Your task to perform on an android device: change text size in settings app Image 0: 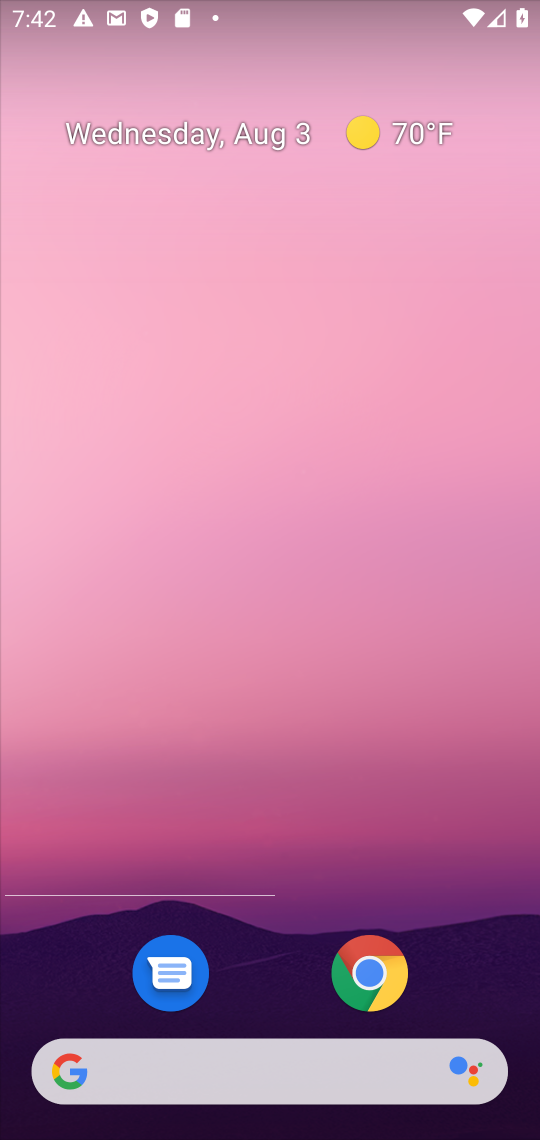
Step 0: press home button
Your task to perform on an android device: change text size in settings app Image 1: 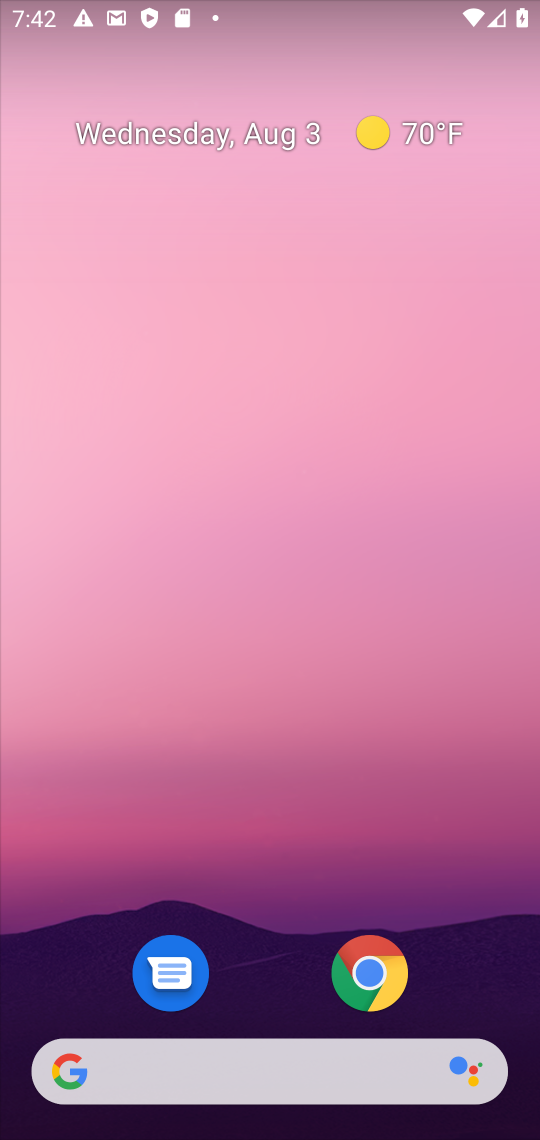
Step 1: drag from (268, 1001) to (348, 30)
Your task to perform on an android device: change text size in settings app Image 2: 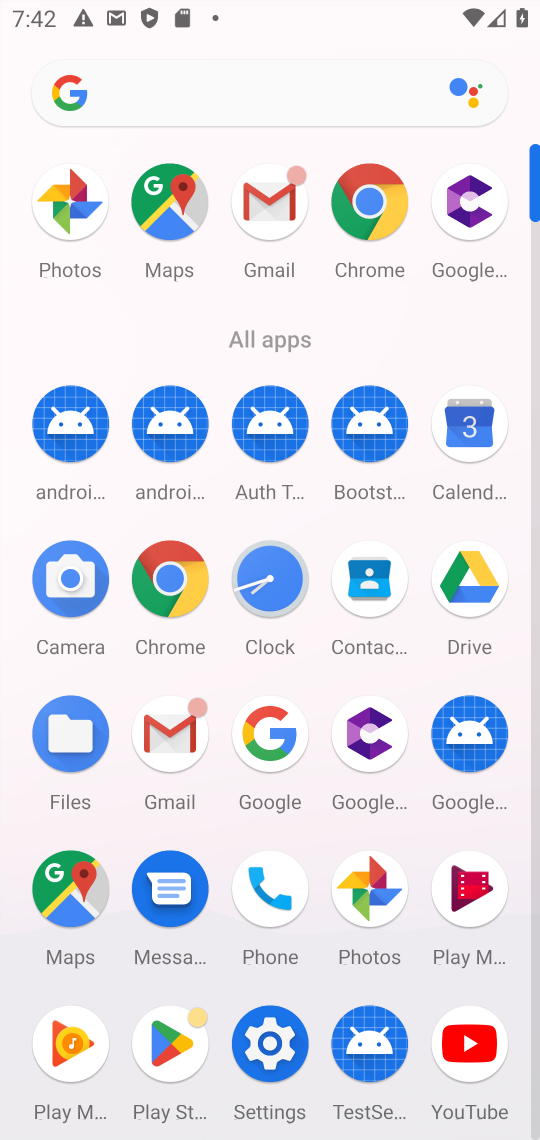
Step 2: click (265, 1036)
Your task to perform on an android device: change text size in settings app Image 3: 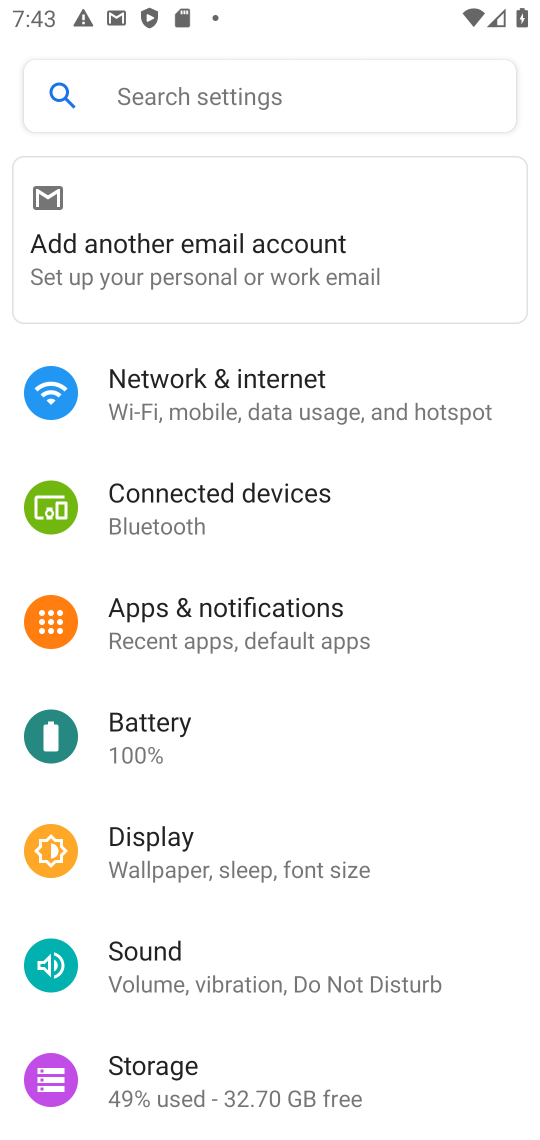
Step 3: click (222, 845)
Your task to perform on an android device: change text size in settings app Image 4: 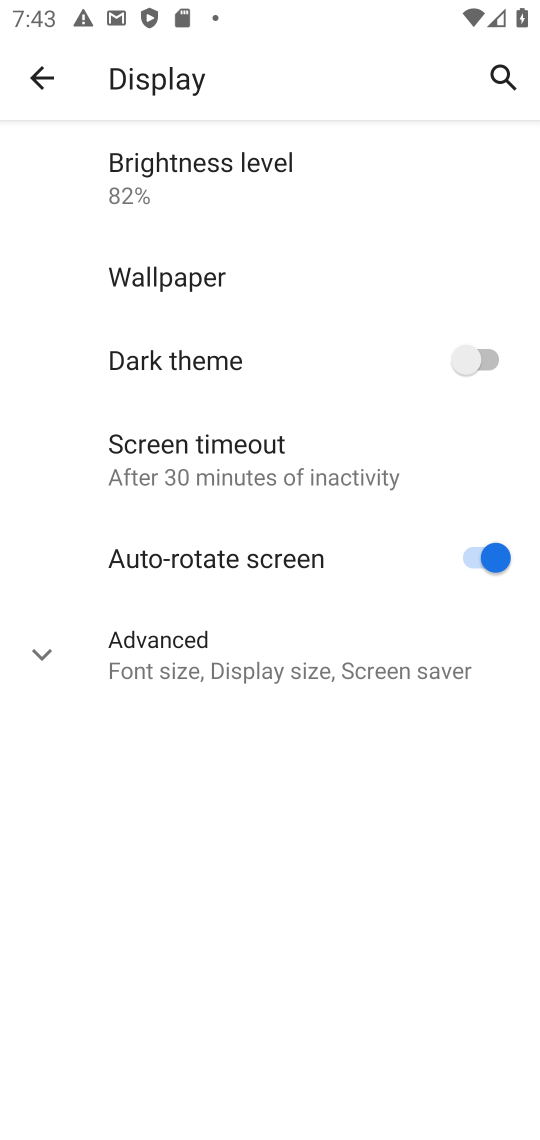
Step 4: click (38, 645)
Your task to perform on an android device: change text size in settings app Image 5: 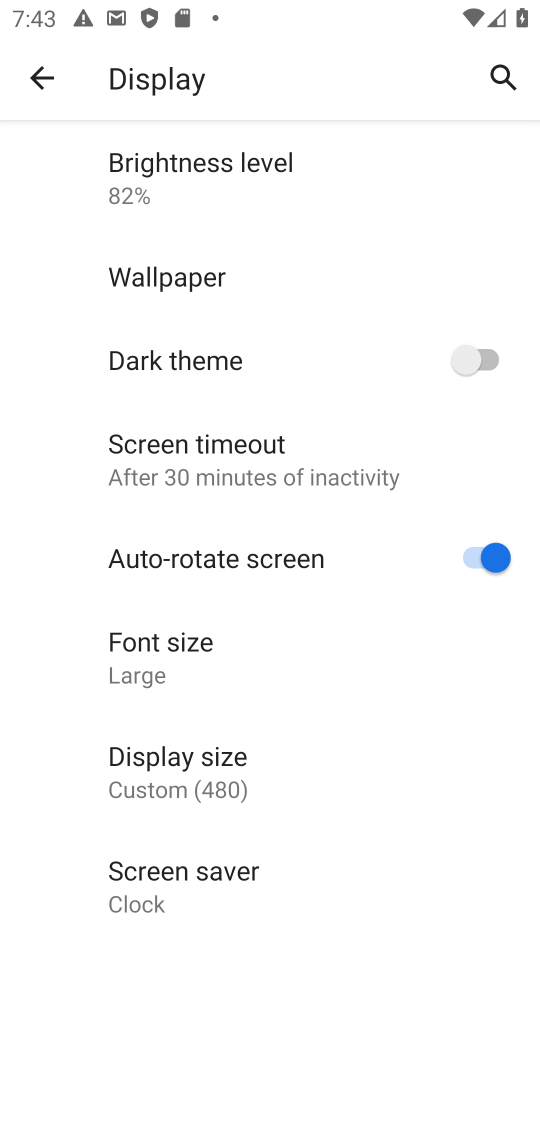
Step 5: click (191, 660)
Your task to perform on an android device: change text size in settings app Image 6: 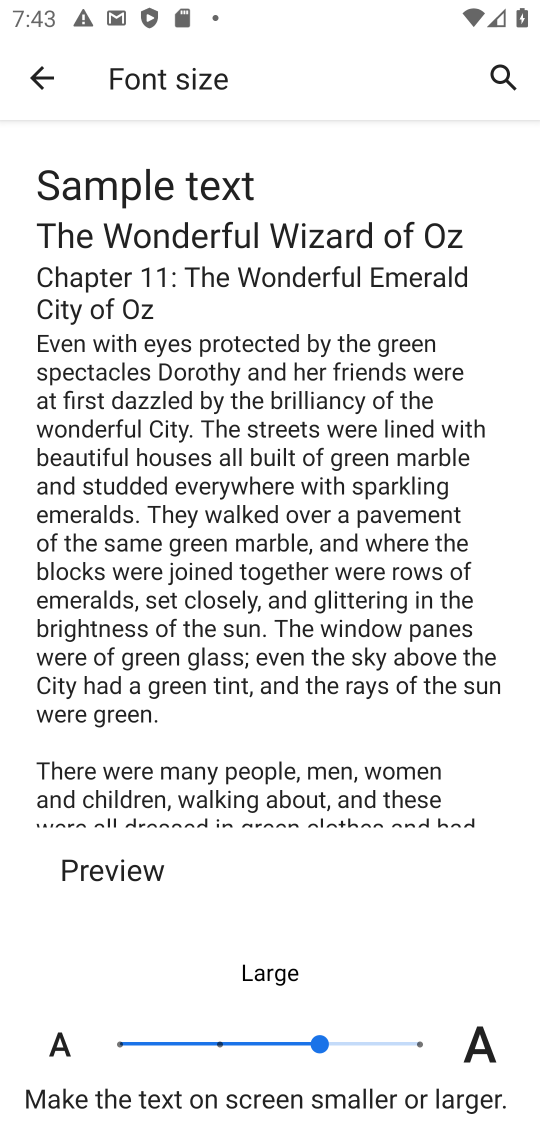
Step 6: click (407, 1035)
Your task to perform on an android device: change text size in settings app Image 7: 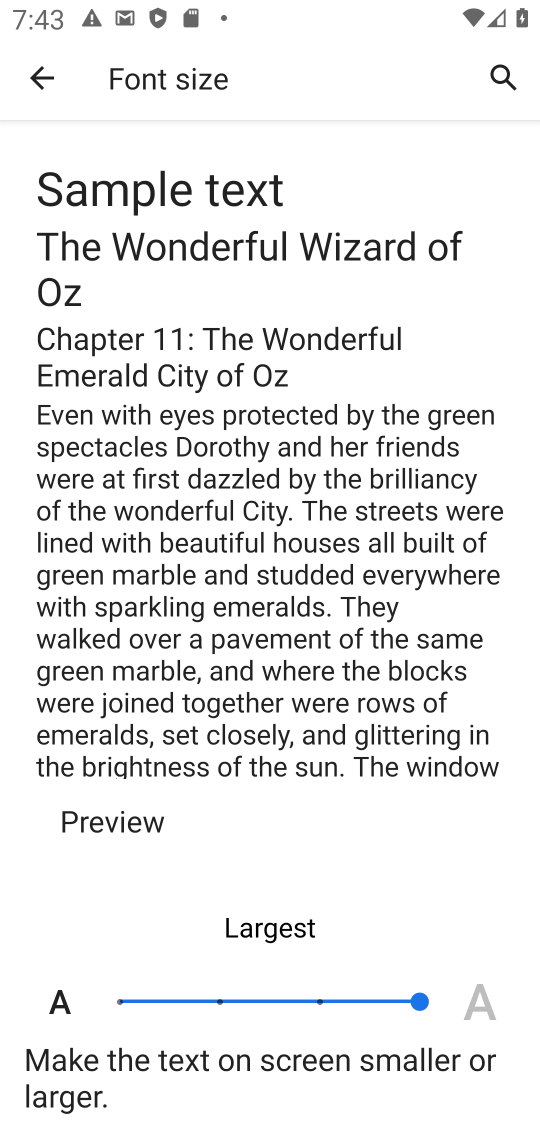
Step 7: task complete